Your task to perform on an android device: stop showing notifications on the lock screen Image 0: 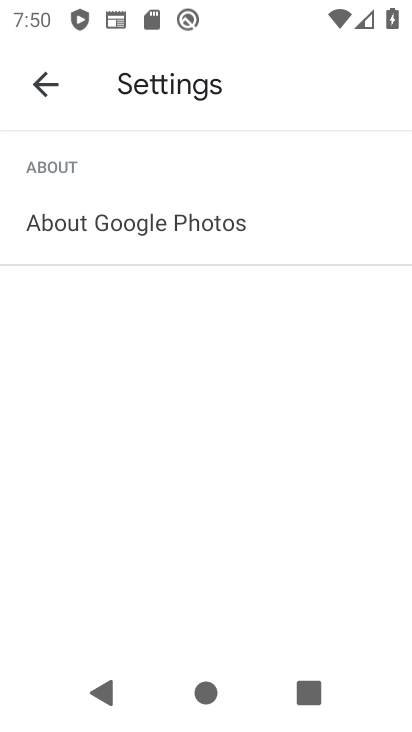
Step 0: press home button
Your task to perform on an android device: stop showing notifications on the lock screen Image 1: 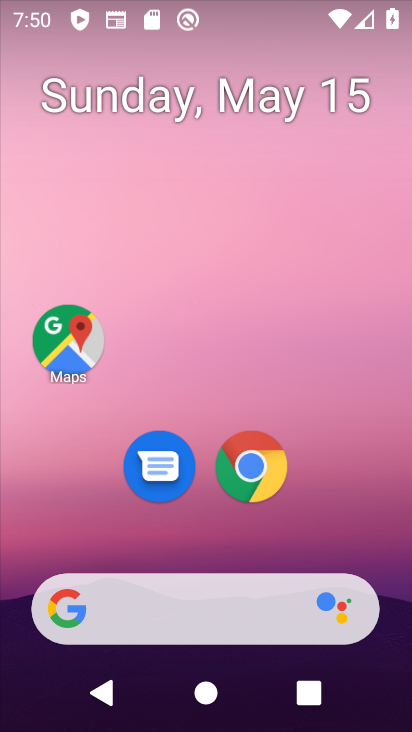
Step 1: drag from (210, 544) to (111, 0)
Your task to perform on an android device: stop showing notifications on the lock screen Image 2: 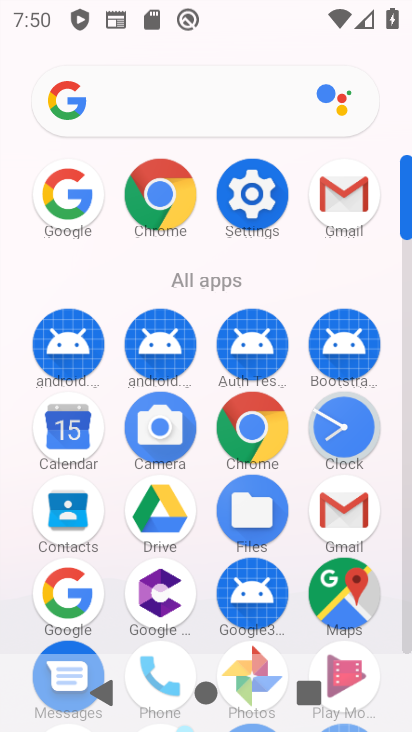
Step 2: click (246, 189)
Your task to perform on an android device: stop showing notifications on the lock screen Image 3: 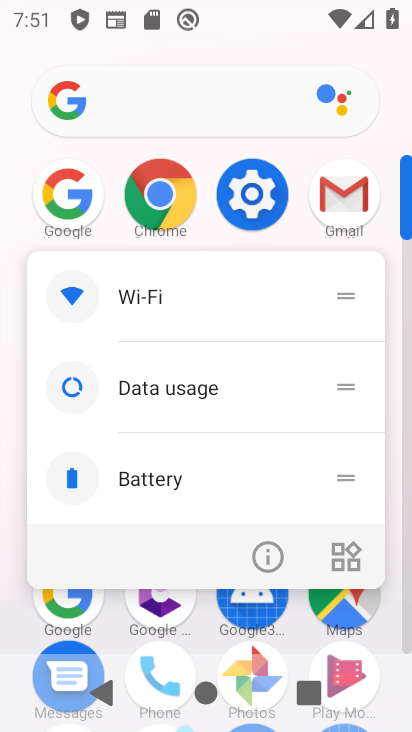
Step 3: click (264, 193)
Your task to perform on an android device: stop showing notifications on the lock screen Image 4: 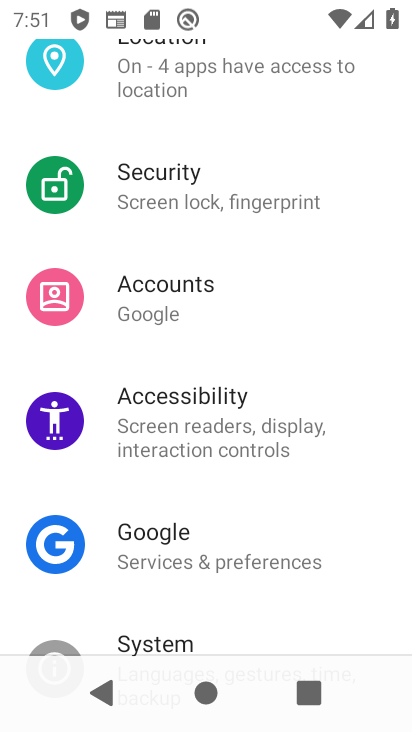
Step 4: drag from (174, 341) to (139, 720)
Your task to perform on an android device: stop showing notifications on the lock screen Image 5: 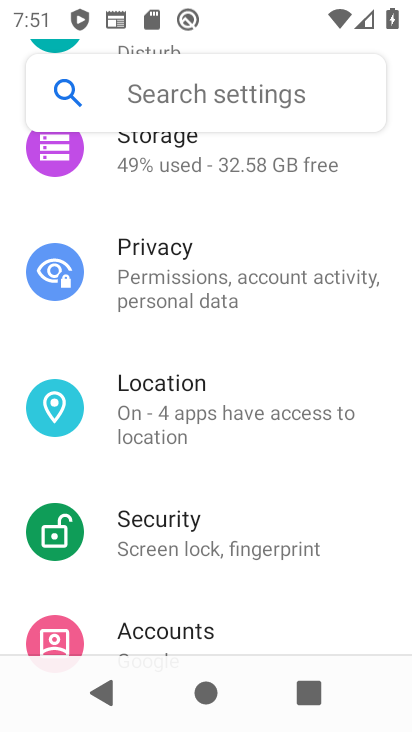
Step 5: drag from (174, 217) to (156, 716)
Your task to perform on an android device: stop showing notifications on the lock screen Image 6: 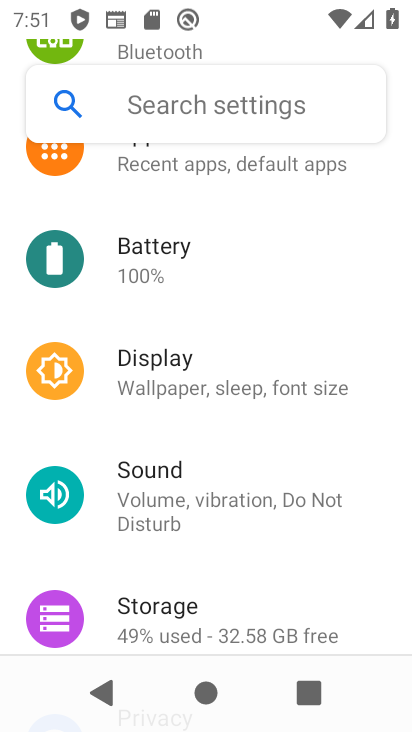
Step 6: drag from (170, 338) to (166, 725)
Your task to perform on an android device: stop showing notifications on the lock screen Image 7: 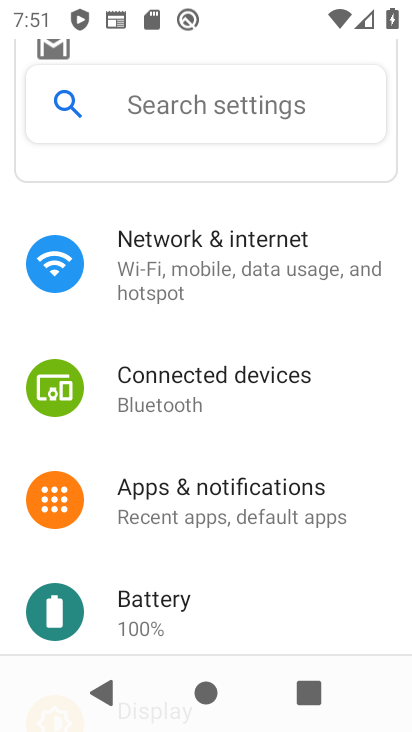
Step 7: drag from (200, 567) to (203, 200)
Your task to perform on an android device: stop showing notifications on the lock screen Image 8: 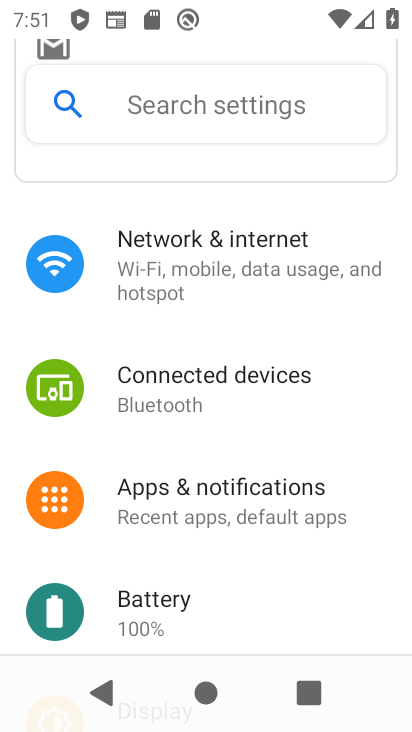
Step 8: drag from (270, 658) to (239, 309)
Your task to perform on an android device: stop showing notifications on the lock screen Image 9: 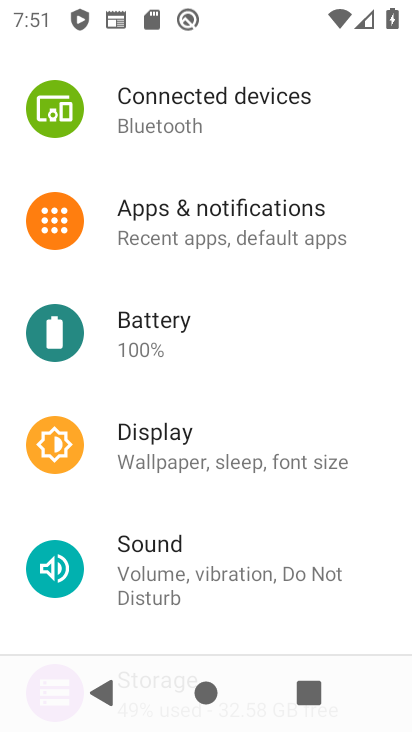
Step 9: click (202, 226)
Your task to perform on an android device: stop showing notifications on the lock screen Image 10: 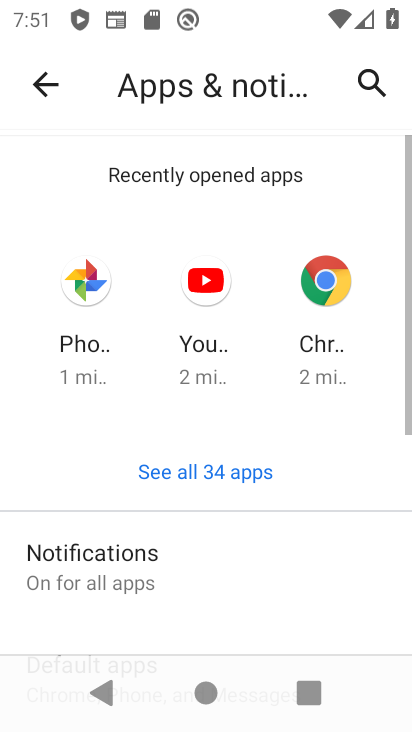
Step 10: click (133, 541)
Your task to perform on an android device: stop showing notifications on the lock screen Image 11: 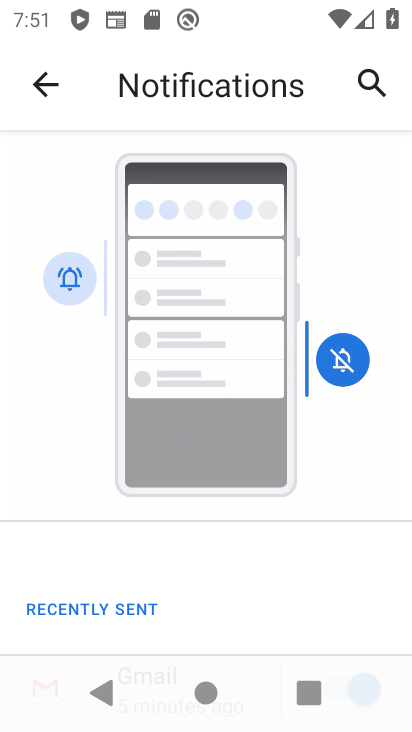
Step 11: drag from (239, 620) to (197, 95)
Your task to perform on an android device: stop showing notifications on the lock screen Image 12: 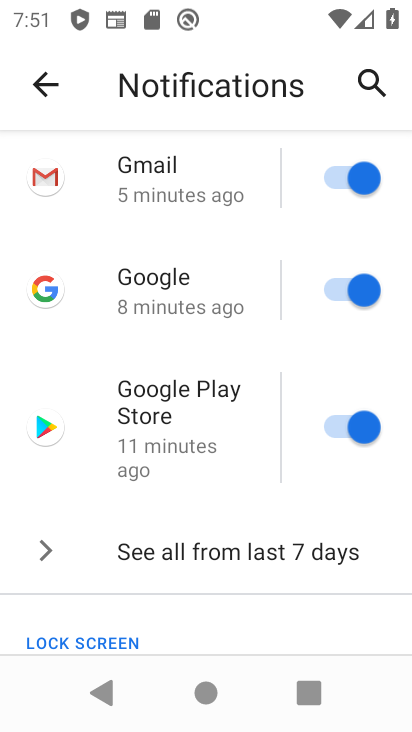
Step 12: drag from (239, 438) to (406, 213)
Your task to perform on an android device: stop showing notifications on the lock screen Image 13: 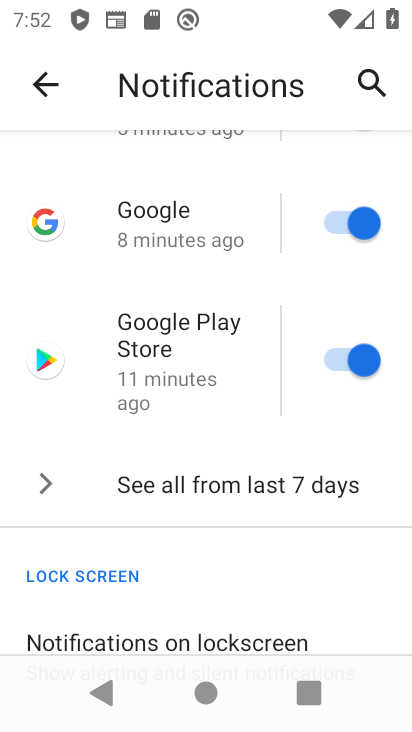
Step 13: drag from (156, 590) to (92, 81)
Your task to perform on an android device: stop showing notifications on the lock screen Image 14: 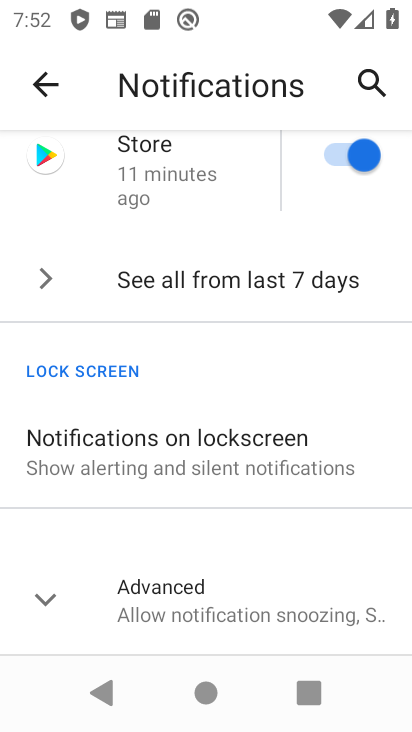
Step 14: drag from (220, 531) to (194, 230)
Your task to perform on an android device: stop showing notifications on the lock screen Image 15: 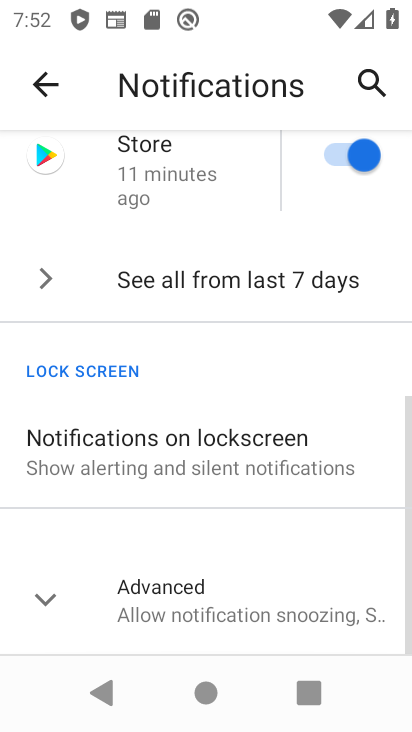
Step 15: click (208, 451)
Your task to perform on an android device: stop showing notifications on the lock screen Image 16: 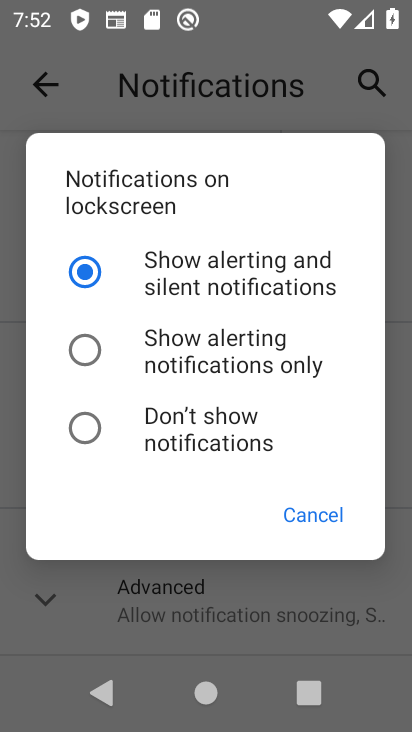
Step 16: click (170, 416)
Your task to perform on an android device: stop showing notifications on the lock screen Image 17: 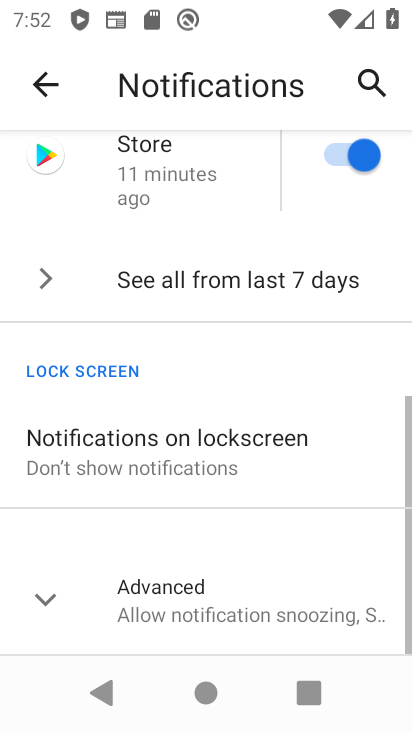
Step 17: task complete